Your task to perform on an android device: Set the phone to "Do not disturb". Image 0: 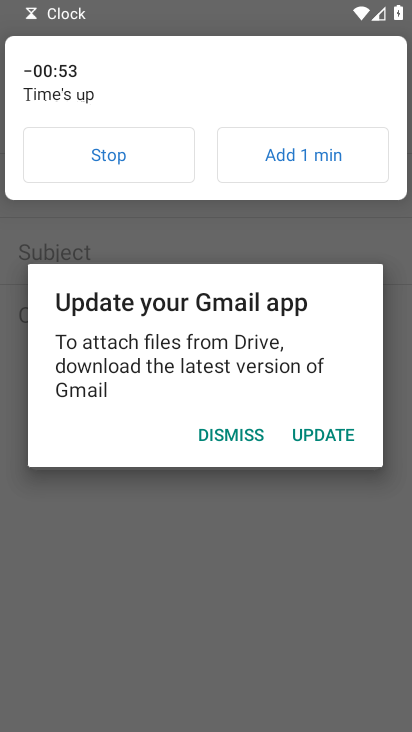
Step 0: press home button
Your task to perform on an android device: Set the phone to "Do not disturb". Image 1: 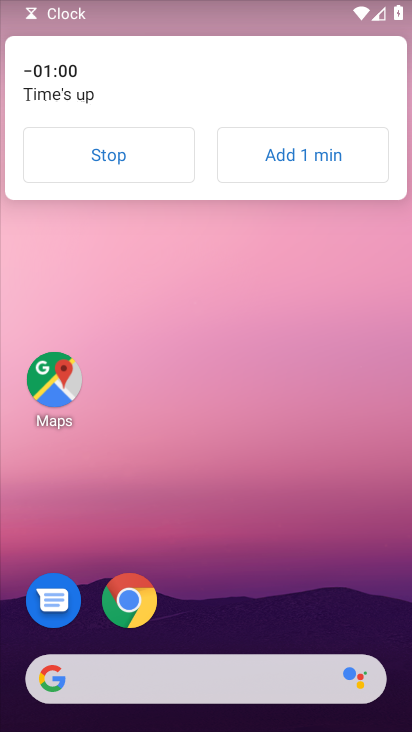
Step 1: drag from (193, 721) to (195, 162)
Your task to perform on an android device: Set the phone to "Do not disturb". Image 2: 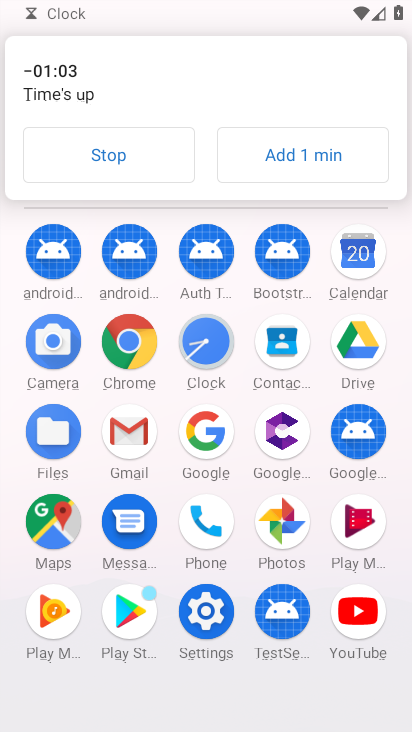
Step 2: click (215, 610)
Your task to perform on an android device: Set the phone to "Do not disturb". Image 3: 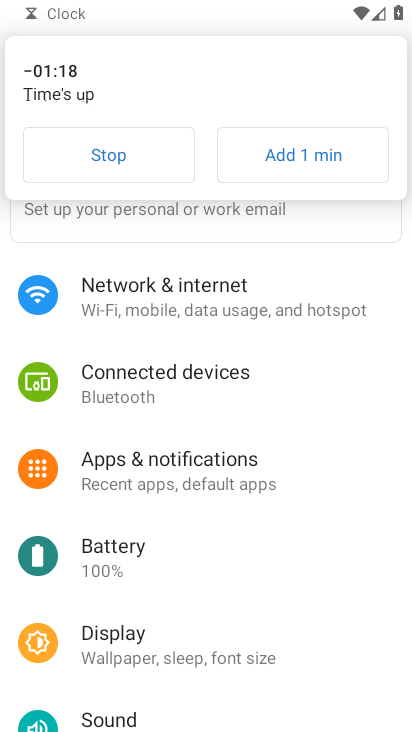
Step 3: drag from (186, 693) to (189, 328)
Your task to perform on an android device: Set the phone to "Do not disturb". Image 4: 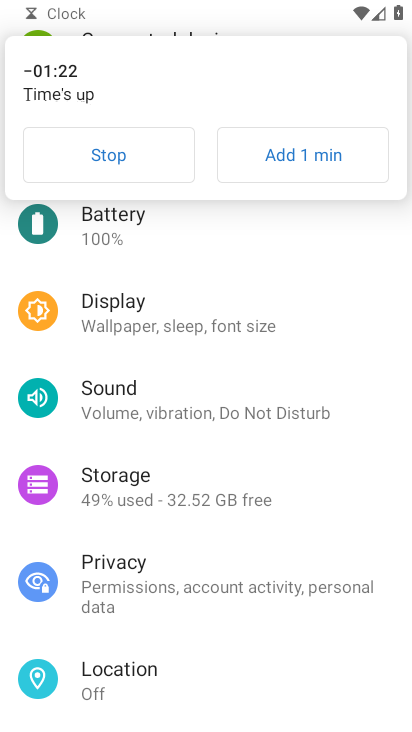
Step 4: click (202, 417)
Your task to perform on an android device: Set the phone to "Do not disturb". Image 5: 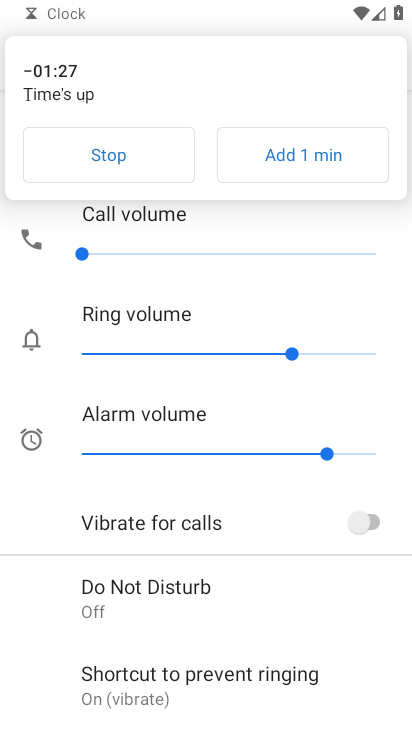
Step 5: click (120, 585)
Your task to perform on an android device: Set the phone to "Do not disturb". Image 6: 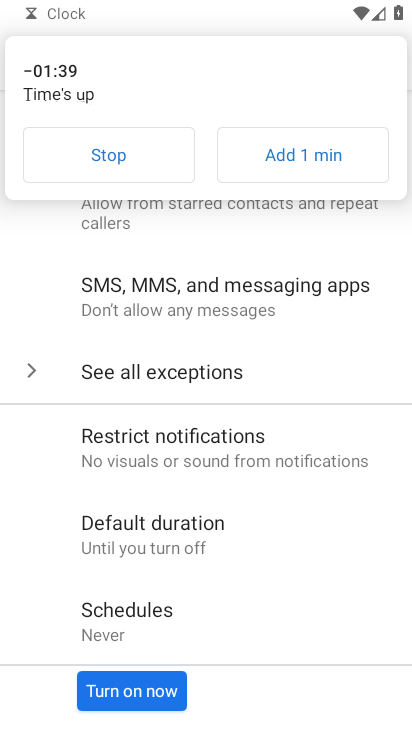
Step 6: click (118, 694)
Your task to perform on an android device: Set the phone to "Do not disturb". Image 7: 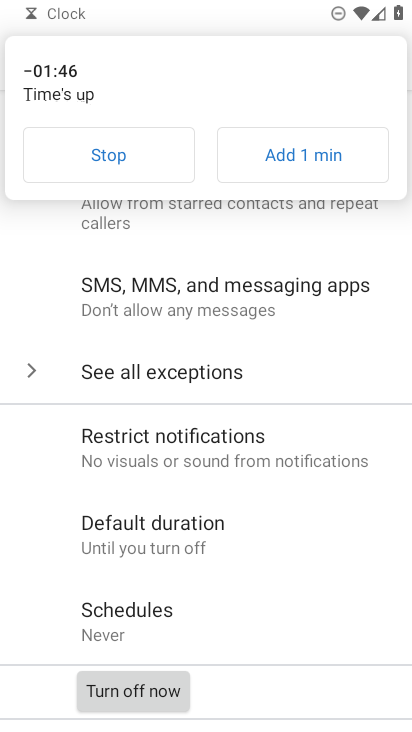
Step 7: task complete